Your task to perform on an android device: Go to Google Image 0: 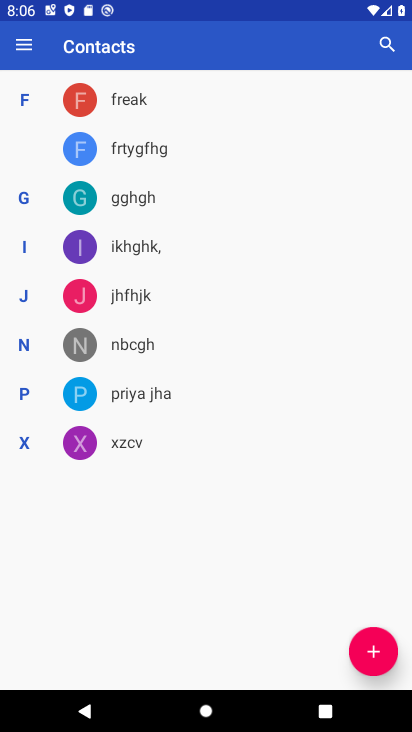
Step 0: press home button
Your task to perform on an android device: Go to Google Image 1: 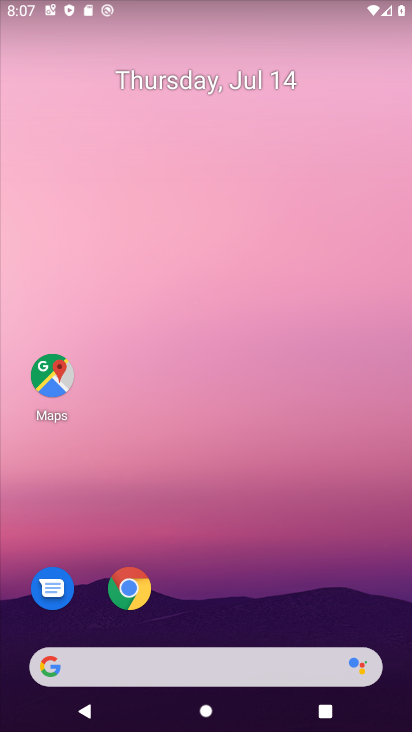
Step 1: drag from (336, 598) to (264, 117)
Your task to perform on an android device: Go to Google Image 2: 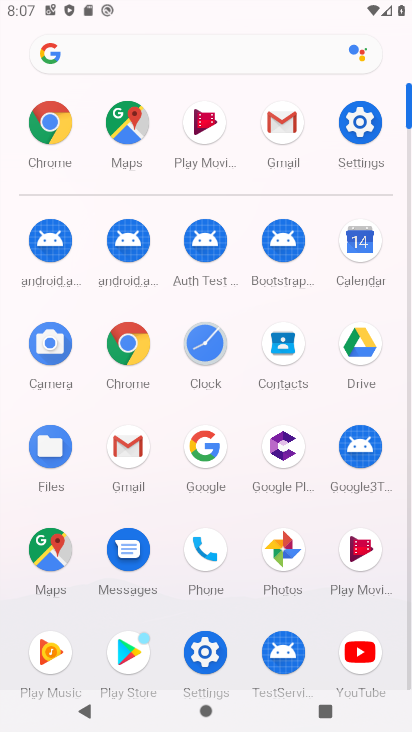
Step 2: click (208, 442)
Your task to perform on an android device: Go to Google Image 3: 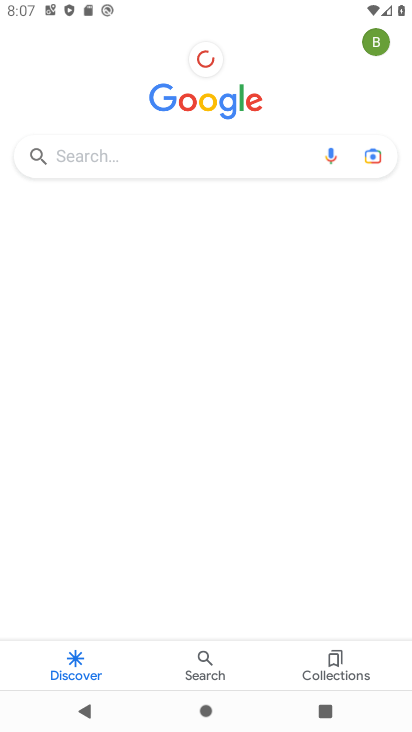
Step 3: task complete